Your task to perform on an android device: change notifications settings Image 0: 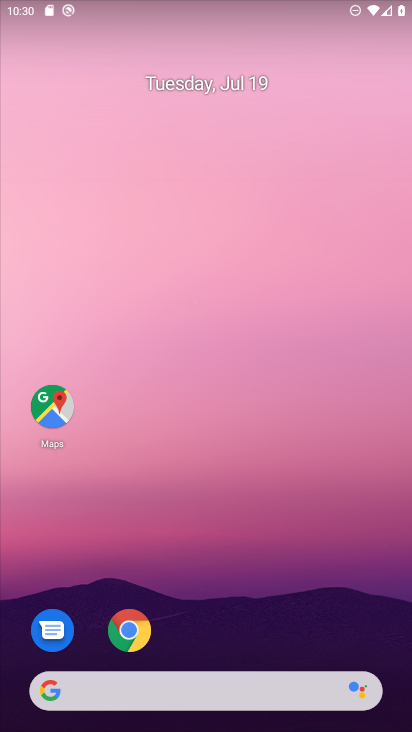
Step 0: drag from (265, 622) to (241, 31)
Your task to perform on an android device: change notifications settings Image 1: 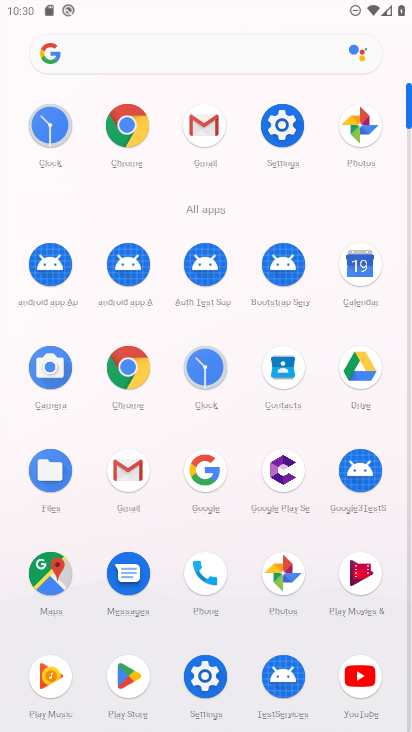
Step 1: click (274, 101)
Your task to perform on an android device: change notifications settings Image 2: 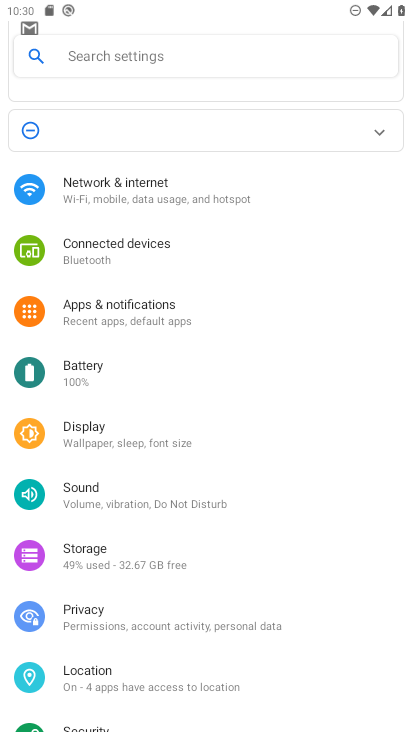
Step 2: click (198, 314)
Your task to perform on an android device: change notifications settings Image 3: 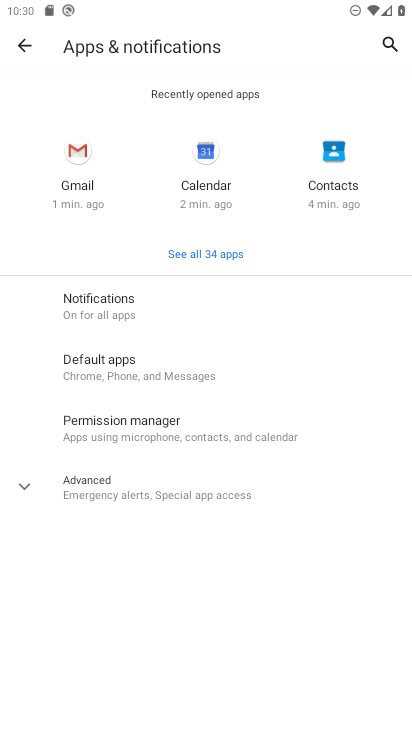
Step 3: click (156, 307)
Your task to perform on an android device: change notifications settings Image 4: 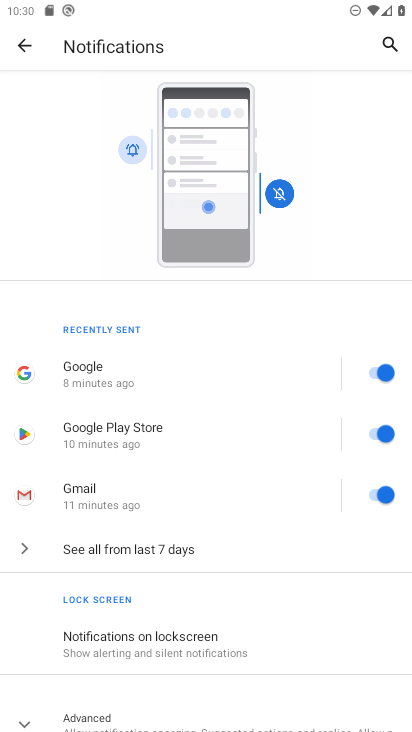
Step 4: drag from (187, 671) to (191, 237)
Your task to perform on an android device: change notifications settings Image 5: 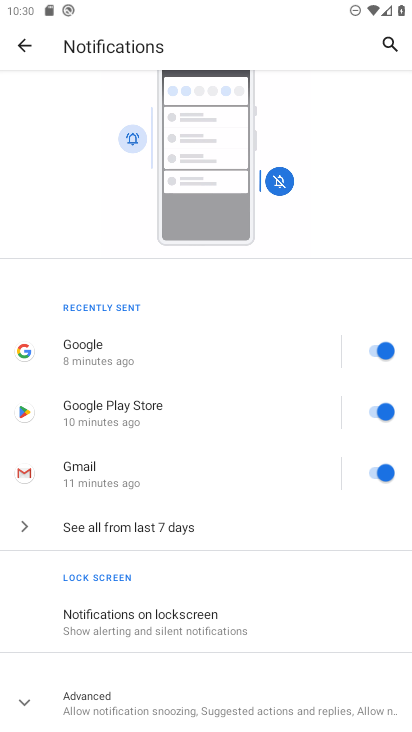
Step 5: click (220, 637)
Your task to perform on an android device: change notifications settings Image 6: 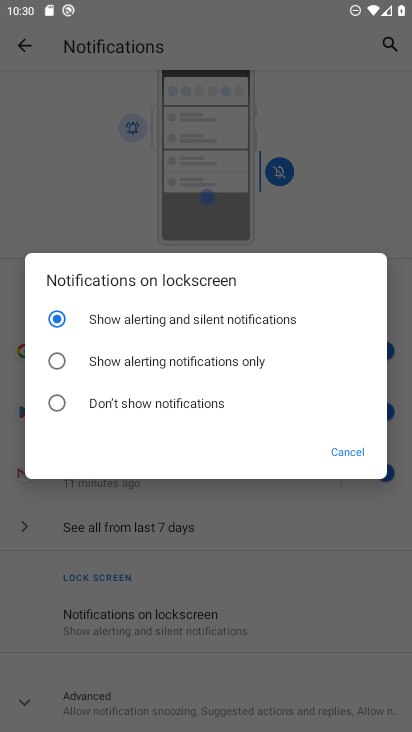
Step 6: click (218, 415)
Your task to perform on an android device: change notifications settings Image 7: 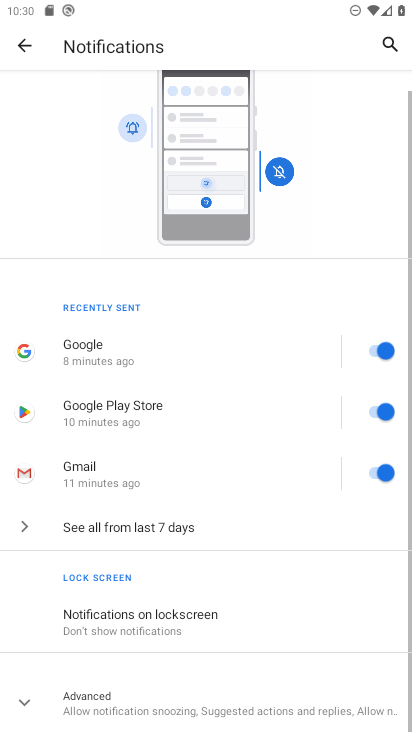
Step 7: task complete